Your task to perform on an android device: turn vacation reply on in the gmail app Image 0: 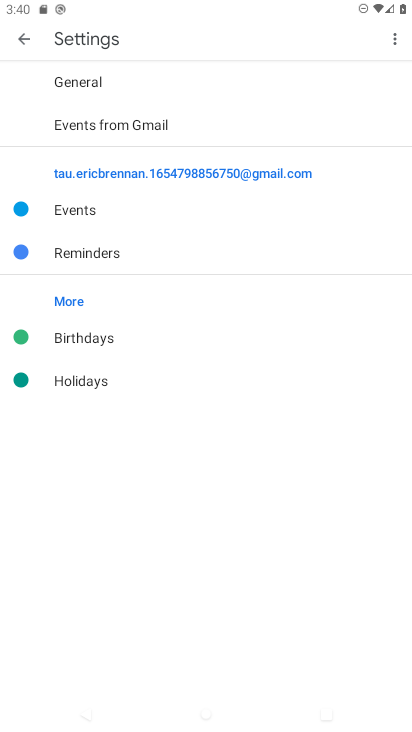
Step 0: drag from (225, 725) to (223, 390)
Your task to perform on an android device: turn vacation reply on in the gmail app Image 1: 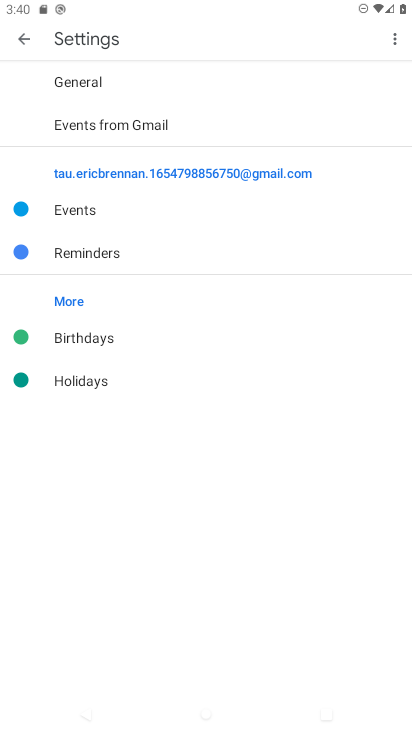
Step 1: press home button
Your task to perform on an android device: turn vacation reply on in the gmail app Image 2: 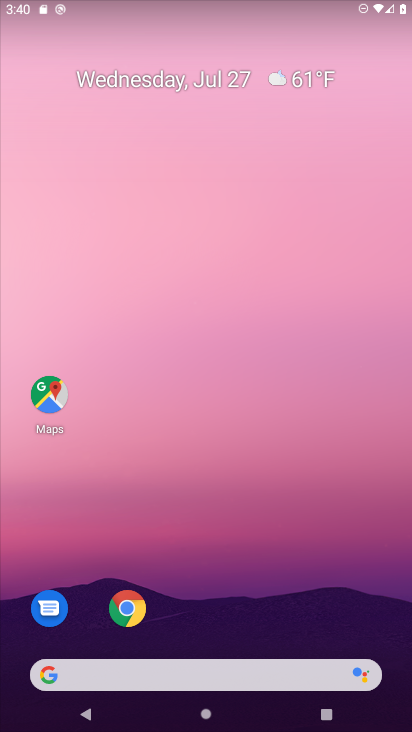
Step 2: drag from (231, 718) to (230, 403)
Your task to perform on an android device: turn vacation reply on in the gmail app Image 3: 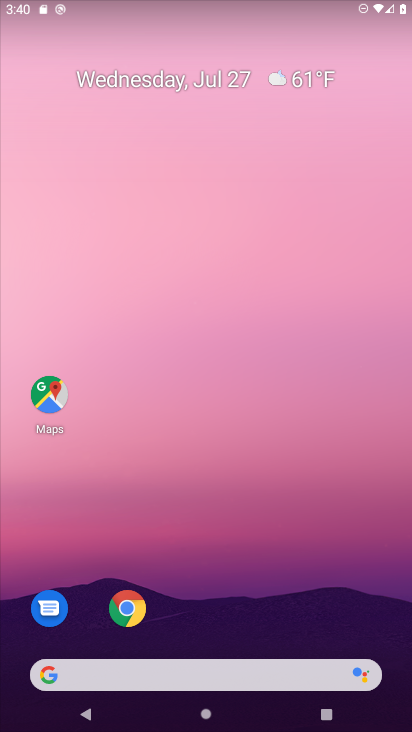
Step 3: drag from (254, 721) to (236, 177)
Your task to perform on an android device: turn vacation reply on in the gmail app Image 4: 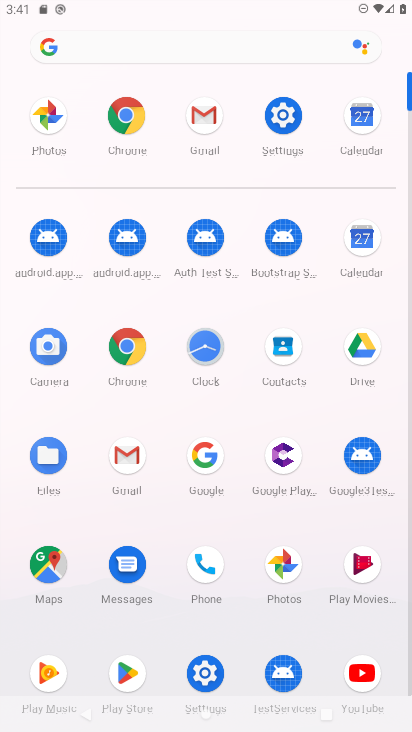
Step 4: click (123, 477)
Your task to perform on an android device: turn vacation reply on in the gmail app Image 5: 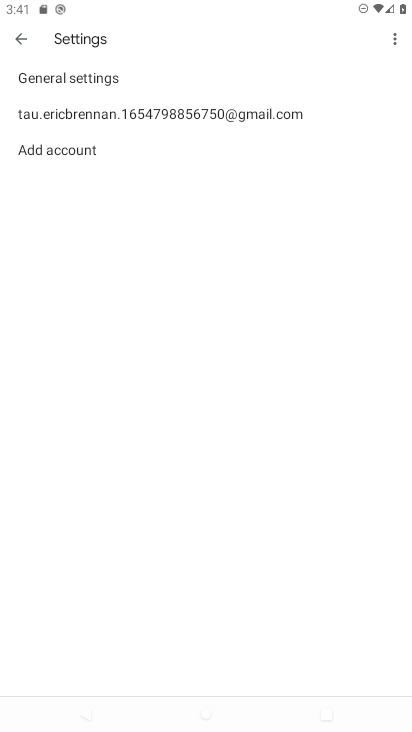
Step 5: click (66, 115)
Your task to perform on an android device: turn vacation reply on in the gmail app Image 6: 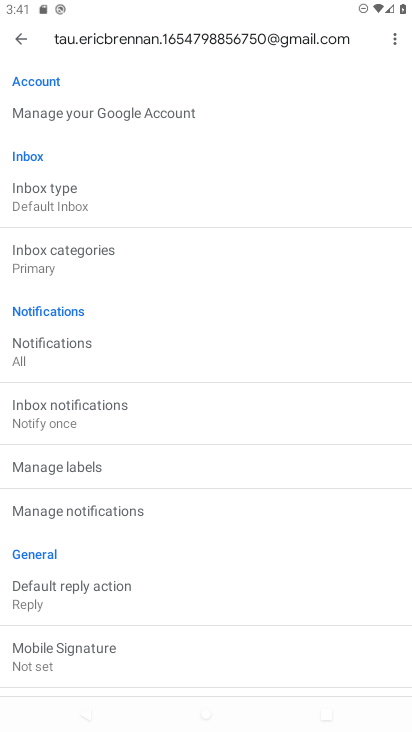
Step 6: drag from (143, 652) to (143, 271)
Your task to perform on an android device: turn vacation reply on in the gmail app Image 7: 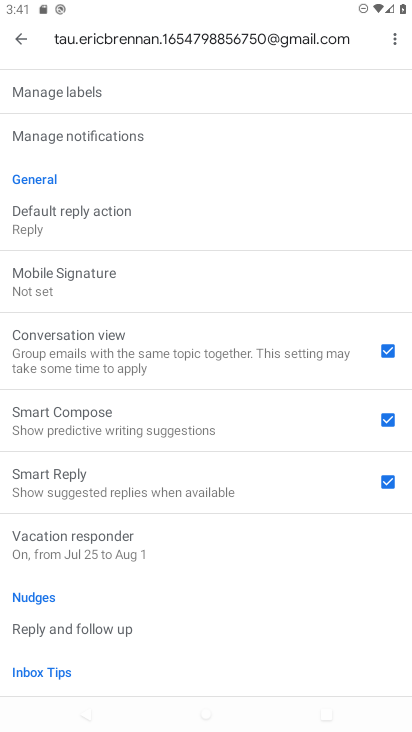
Step 7: click (101, 546)
Your task to perform on an android device: turn vacation reply on in the gmail app Image 8: 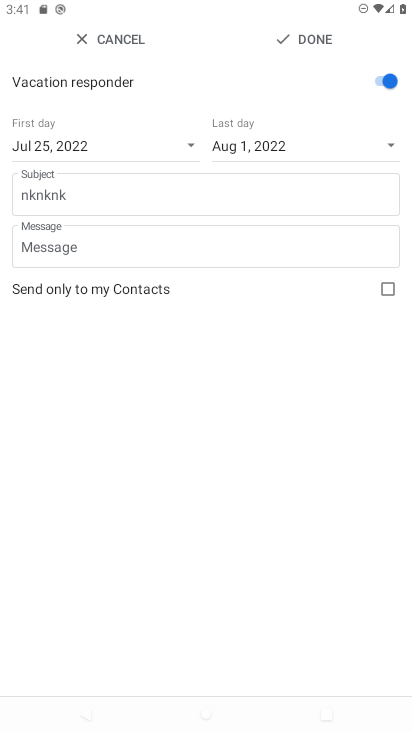
Step 8: task complete